Your task to perform on an android device: Clear the cart on amazon. Image 0: 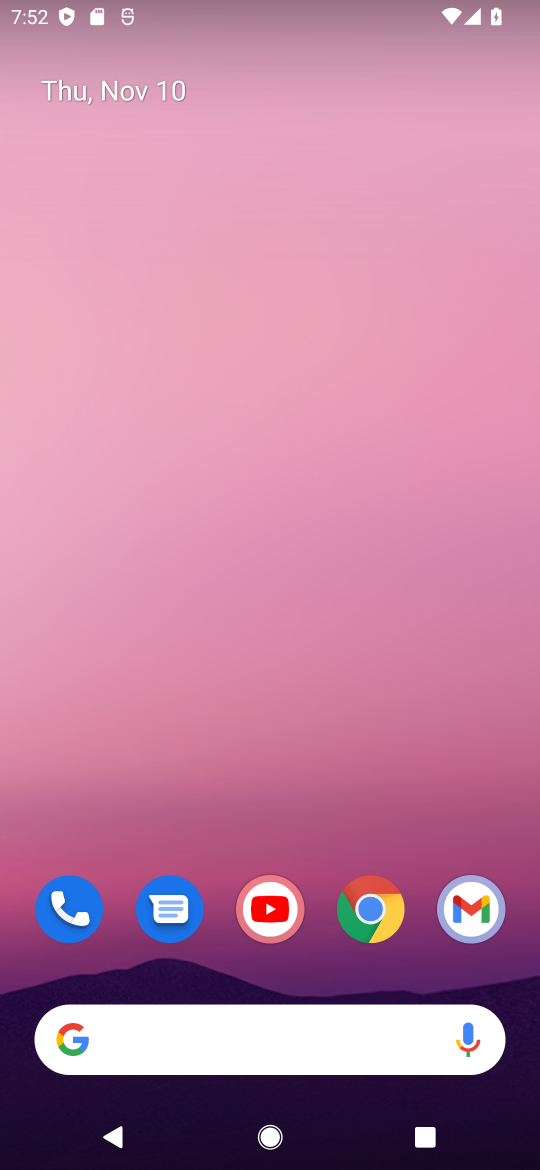
Step 0: drag from (234, 853) to (275, 327)
Your task to perform on an android device: Clear the cart on amazon. Image 1: 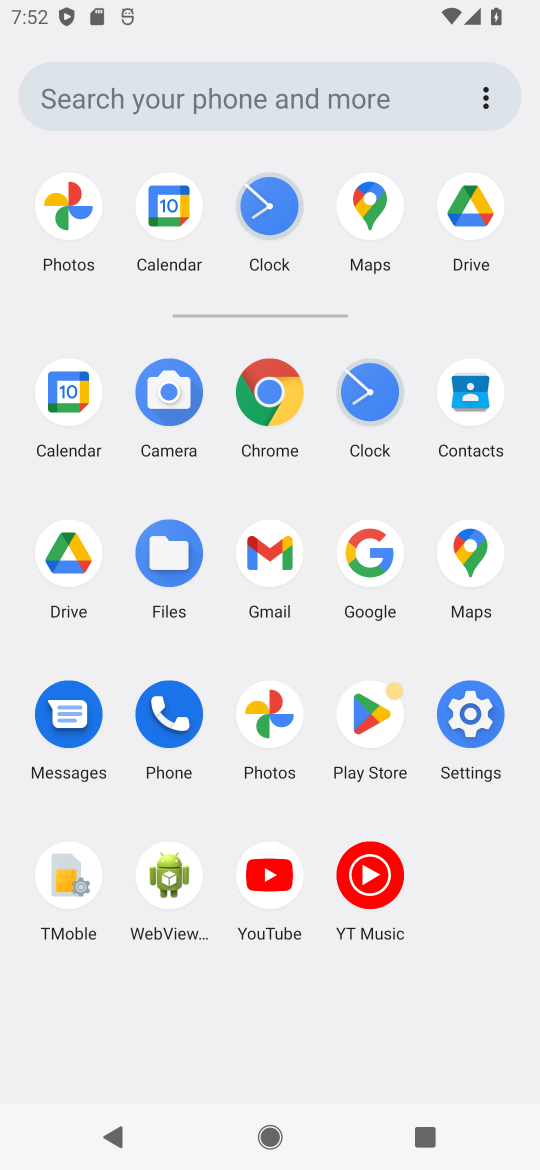
Step 1: click (353, 564)
Your task to perform on an android device: Clear the cart on amazon. Image 2: 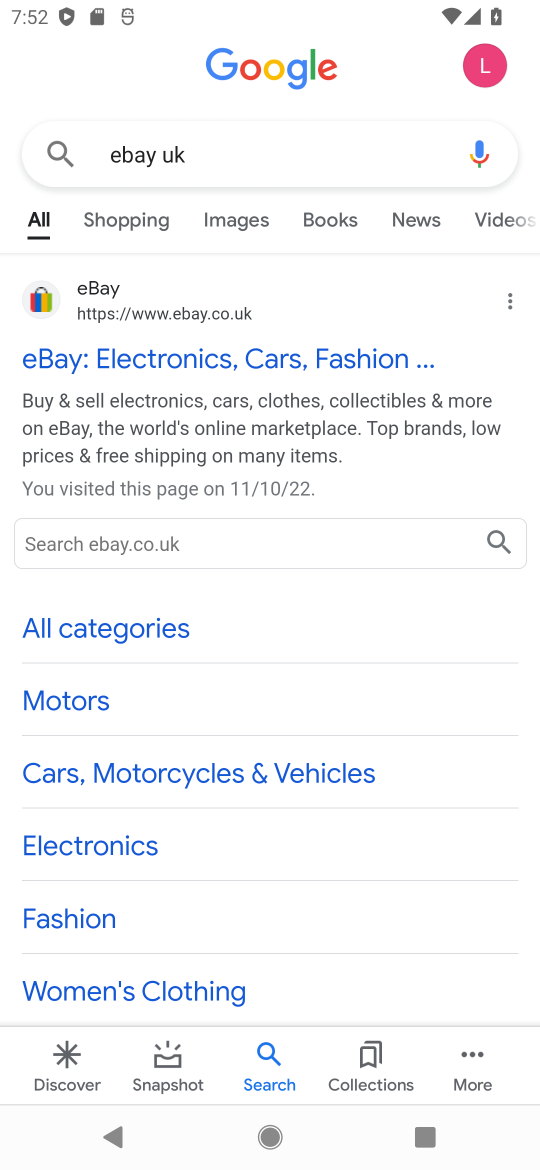
Step 2: click (210, 143)
Your task to perform on an android device: Clear the cart on amazon. Image 3: 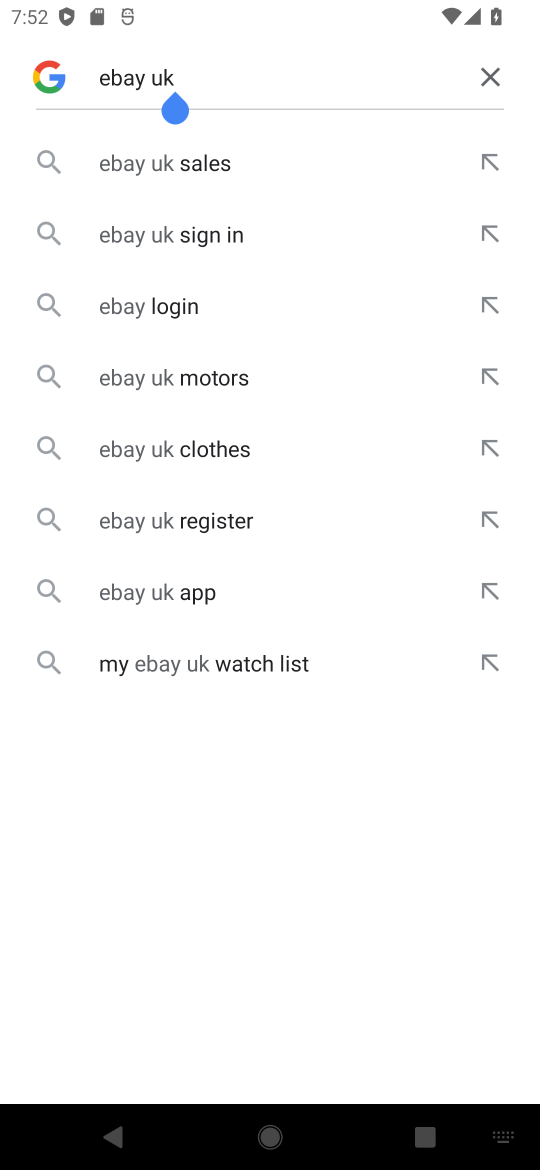
Step 3: click (497, 71)
Your task to perform on an android device: Clear the cart on amazon. Image 4: 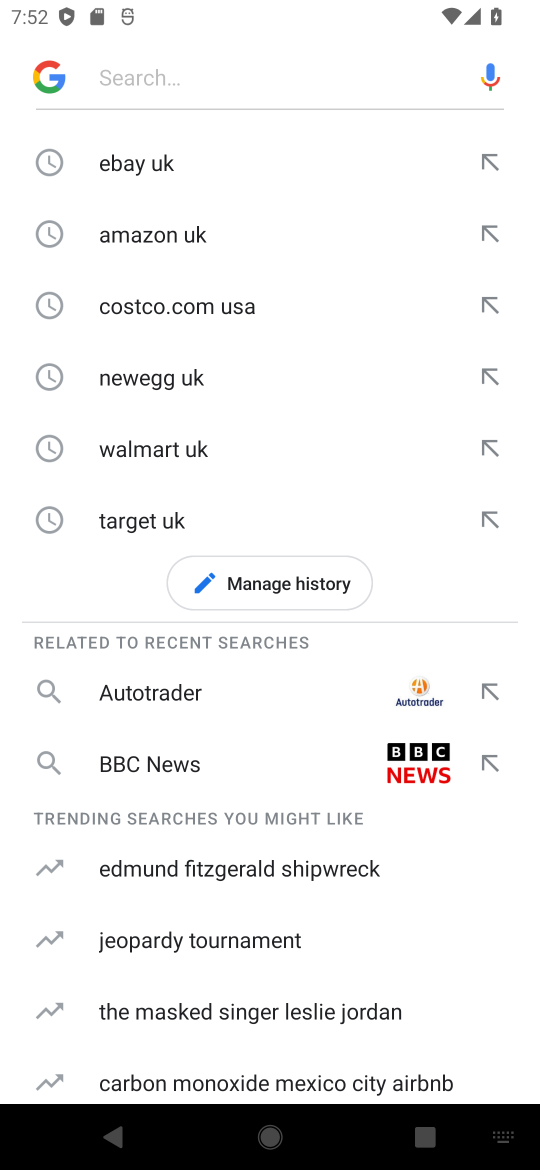
Step 4: click (259, 74)
Your task to perform on an android device: Clear the cart on amazon. Image 5: 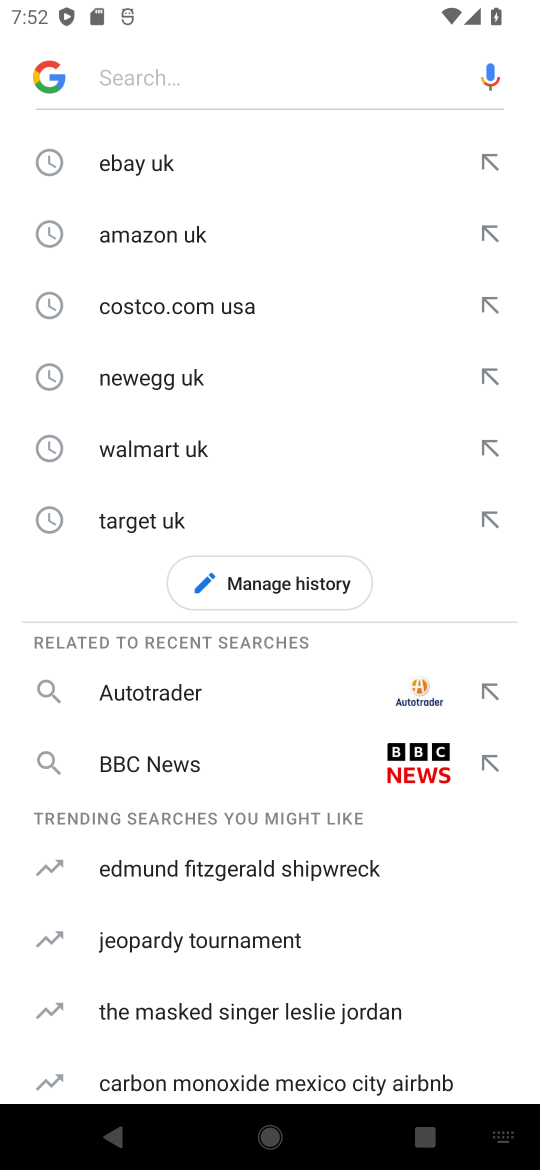
Step 5: type "amazon "
Your task to perform on an android device: Clear the cart on amazon. Image 6: 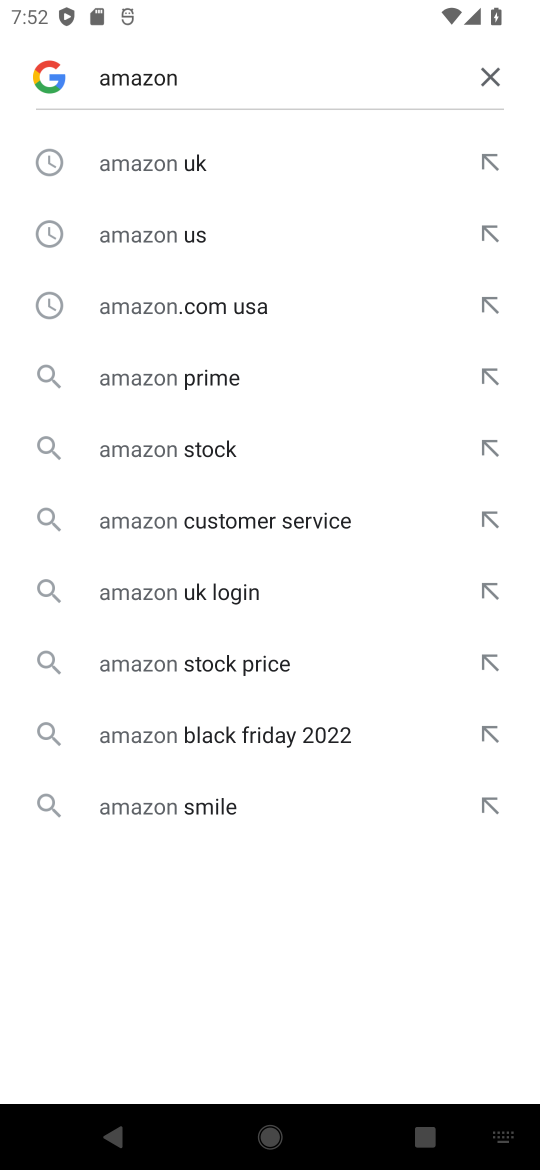
Step 6: click (163, 163)
Your task to perform on an android device: Clear the cart on amazon. Image 7: 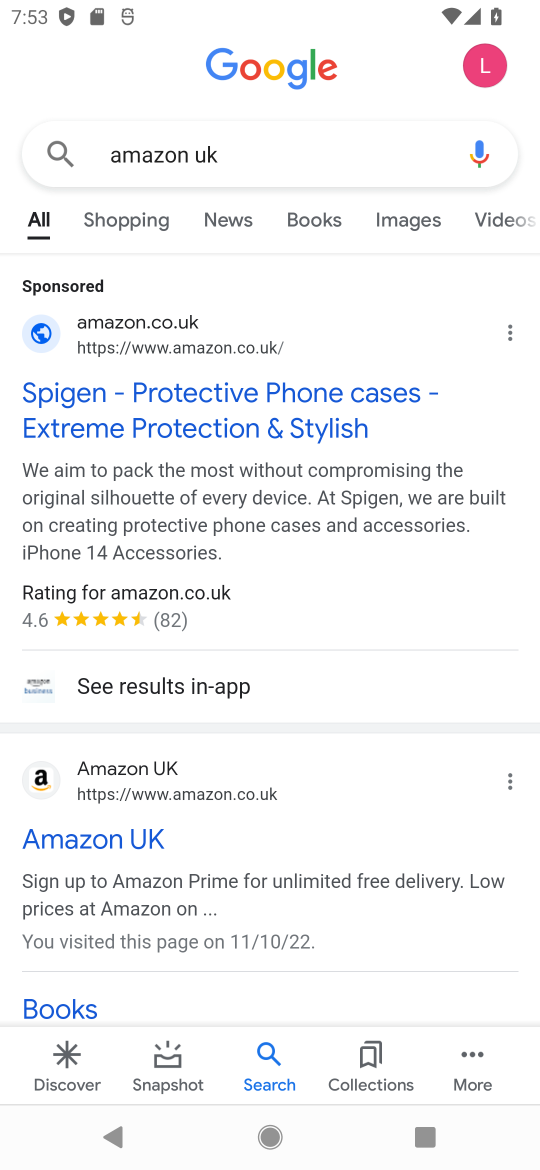
Step 7: click (39, 777)
Your task to perform on an android device: Clear the cart on amazon. Image 8: 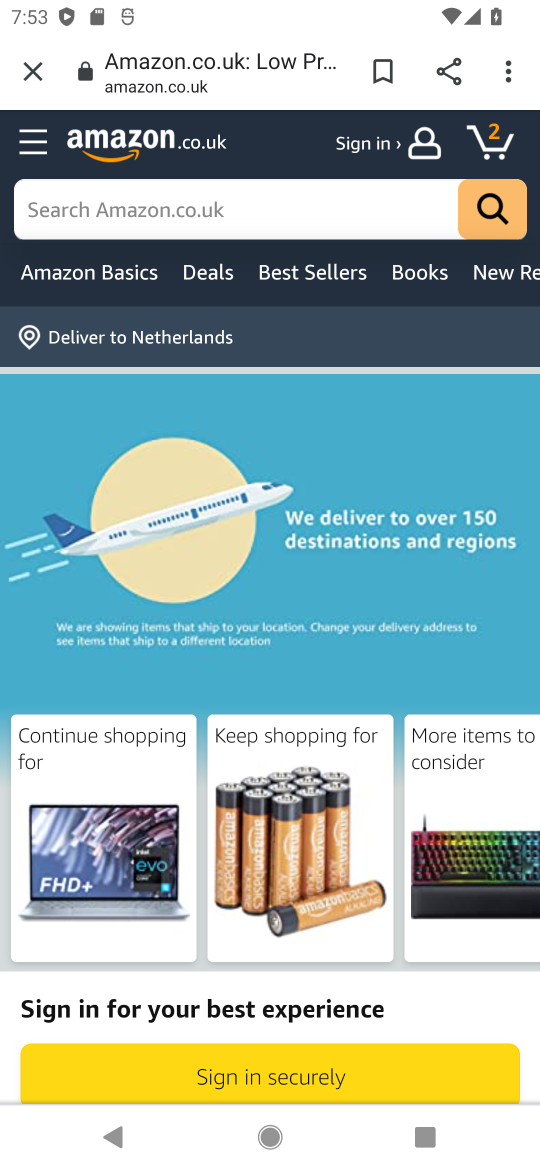
Step 8: click (492, 138)
Your task to perform on an android device: Clear the cart on amazon. Image 9: 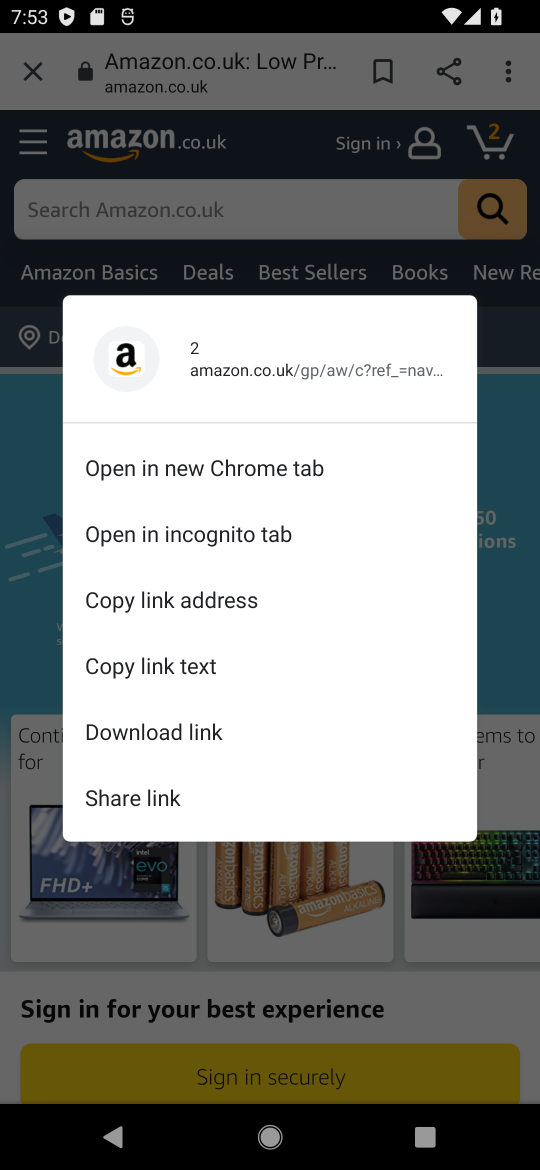
Step 9: click (493, 145)
Your task to perform on an android device: Clear the cart on amazon. Image 10: 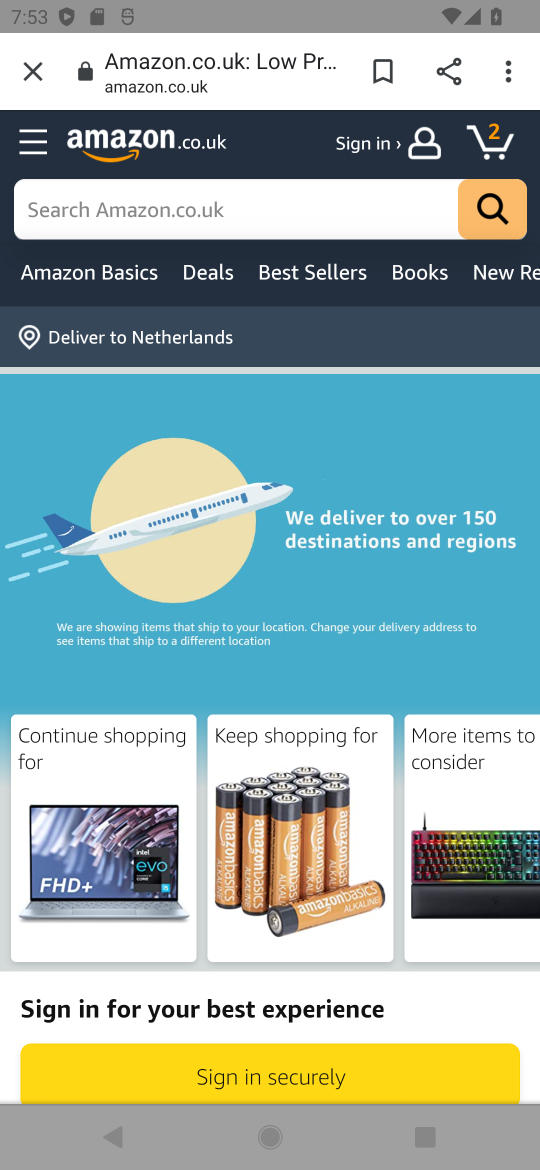
Step 10: click (493, 145)
Your task to perform on an android device: Clear the cart on amazon. Image 11: 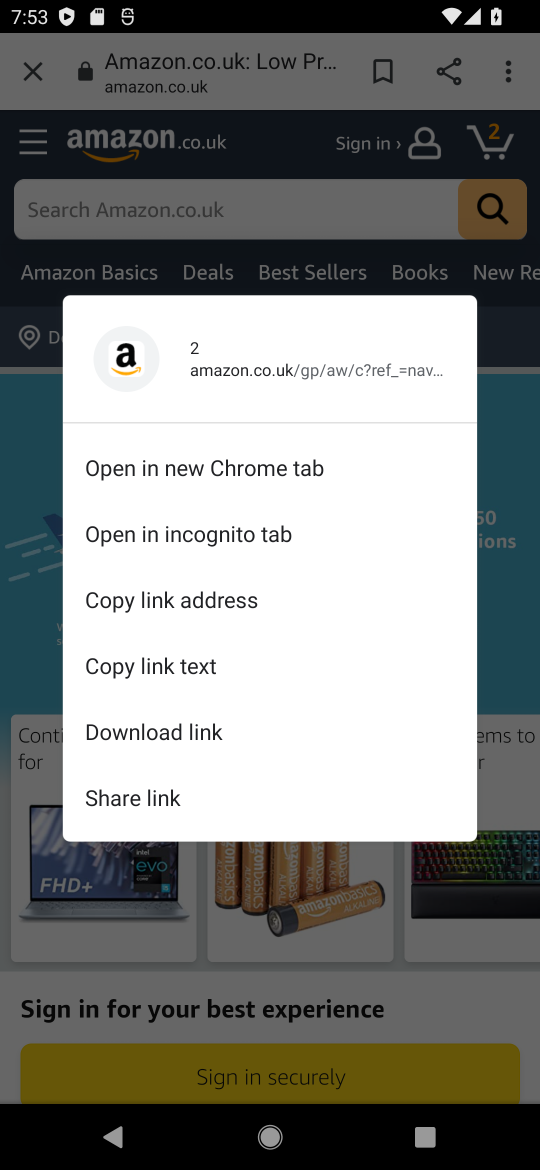
Step 11: click (493, 145)
Your task to perform on an android device: Clear the cart on amazon. Image 12: 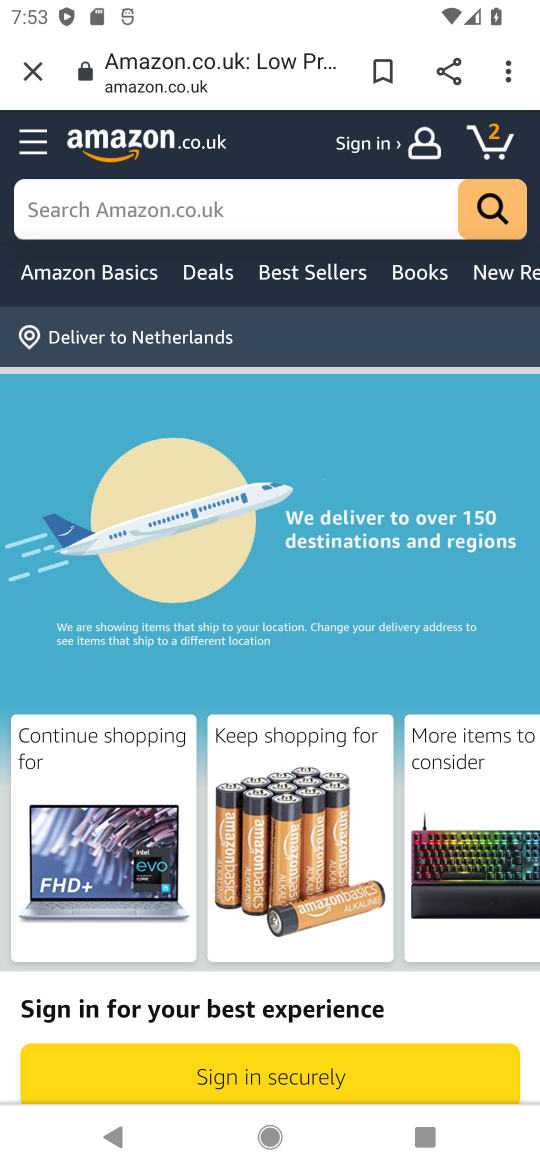
Step 12: click (491, 137)
Your task to perform on an android device: Clear the cart on amazon. Image 13: 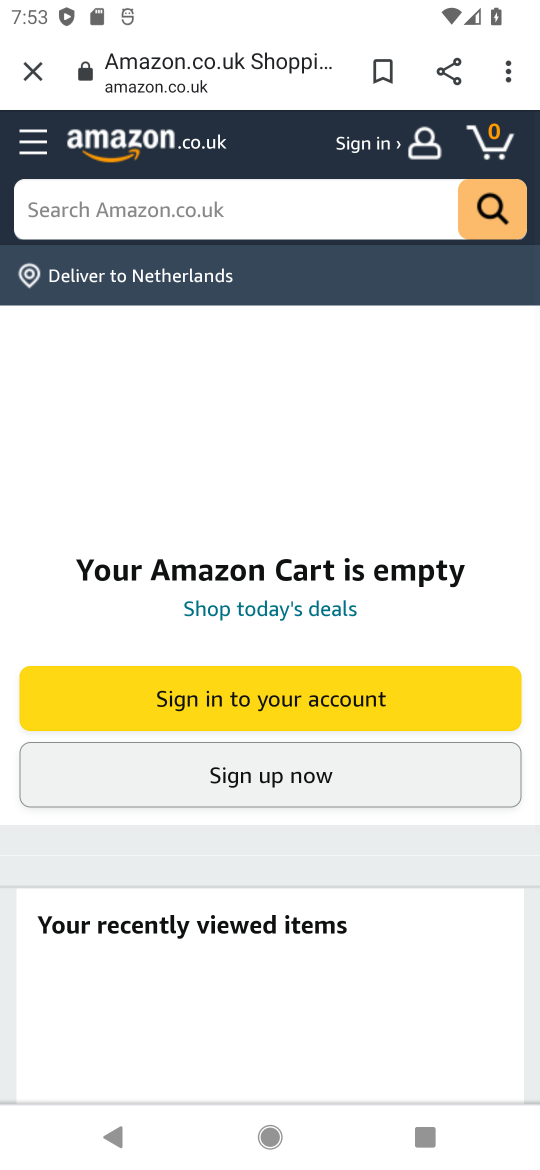
Step 13: click (491, 126)
Your task to perform on an android device: Clear the cart on amazon. Image 14: 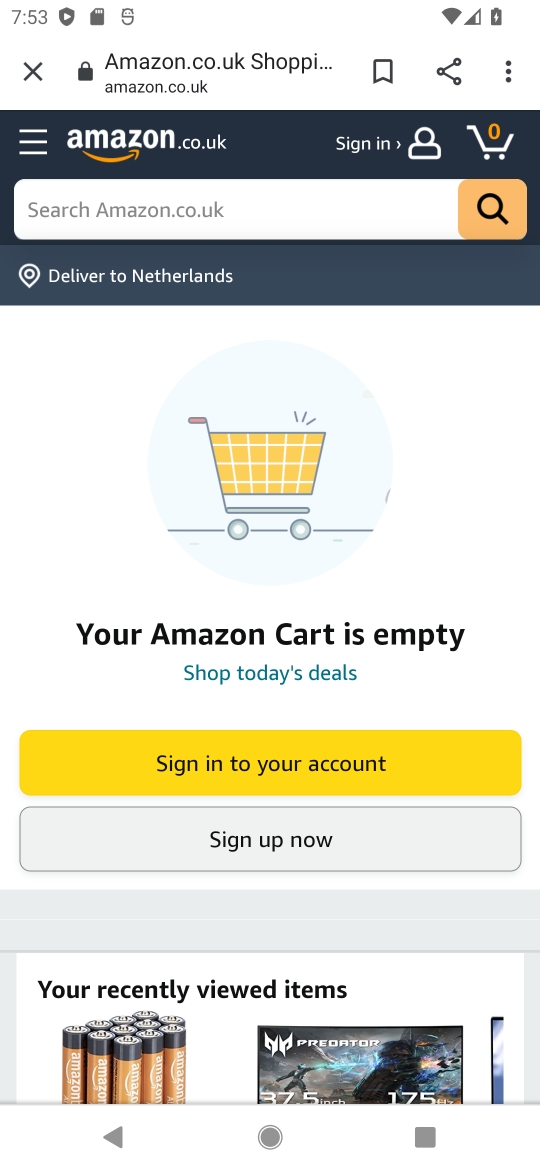
Step 14: task complete